Your task to perform on an android device: turn on translation in the chrome app Image 0: 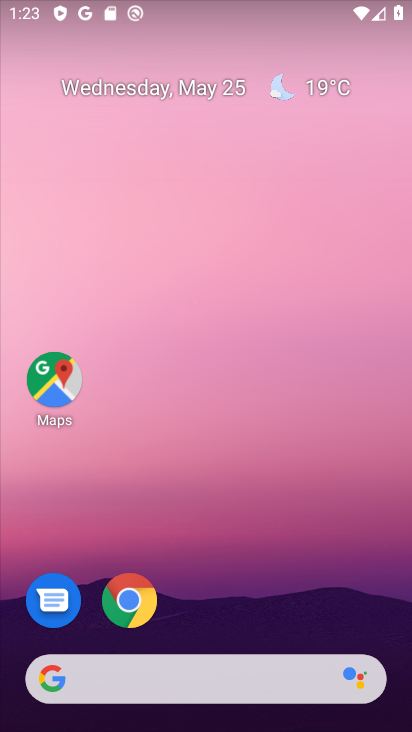
Step 0: click (129, 610)
Your task to perform on an android device: turn on translation in the chrome app Image 1: 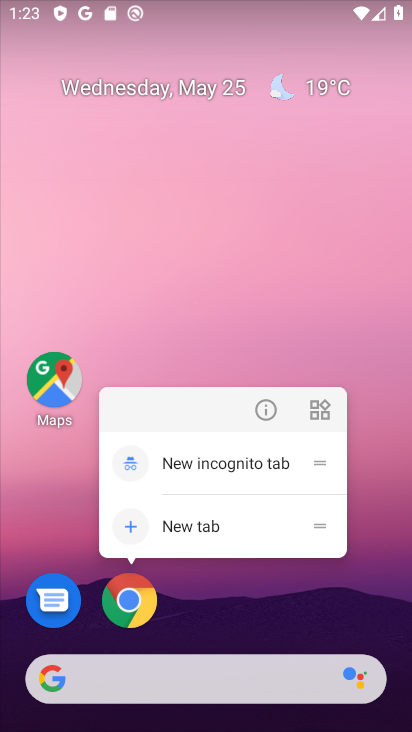
Step 1: click (116, 603)
Your task to perform on an android device: turn on translation in the chrome app Image 2: 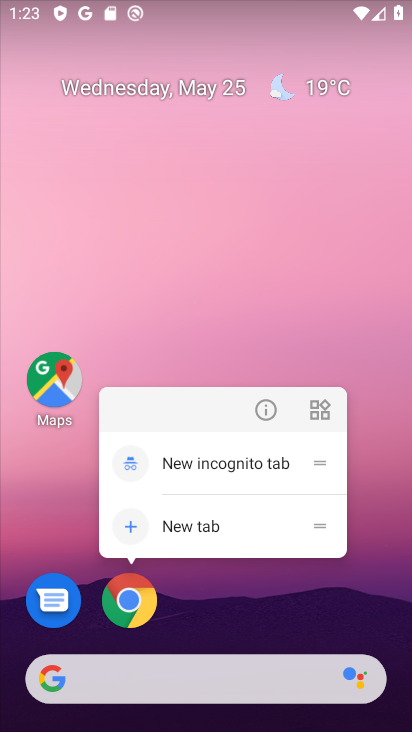
Step 2: click (130, 596)
Your task to perform on an android device: turn on translation in the chrome app Image 3: 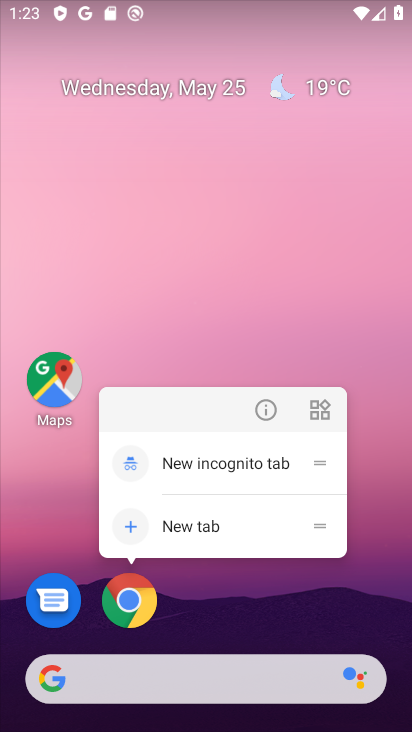
Step 3: click (119, 605)
Your task to perform on an android device: turn on translation in the chrome app Image 4: 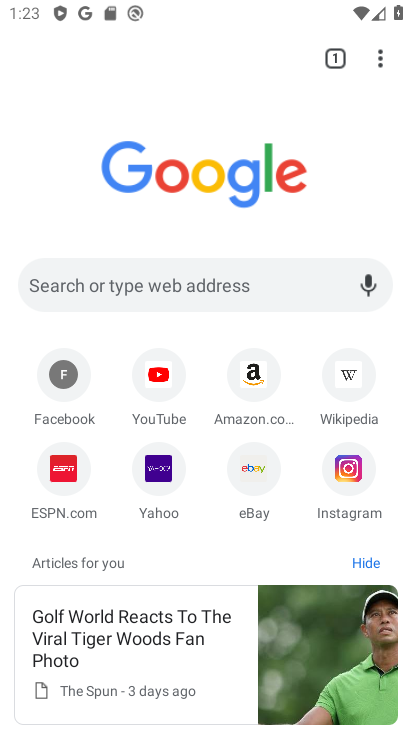
Step 4: drag from (378, 61) to (264, 499)
Your task to perform on an android device: turn on translation in the chrome app Image 5: 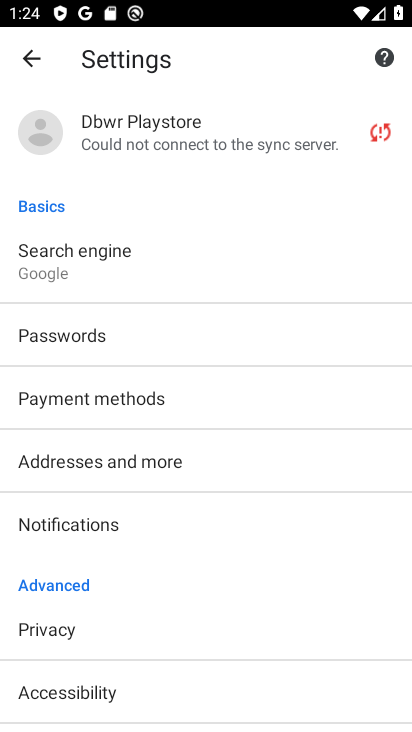
Step 5: drag from (153, 623) to (220, 305)
Your task to perform on an android device: turn on translation in the chrome app Image 6: 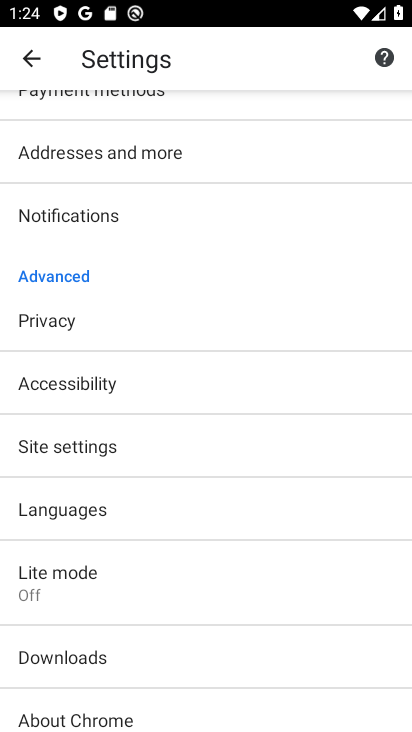
Step 6: click (112, 507)
Your task to perform on an android device: turn on translation in the chrome app Image 7: 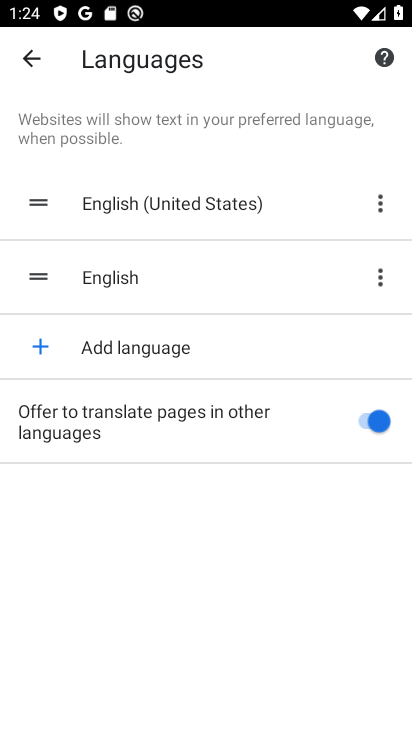
Step 7: task complete